Your task to perform on an android device: Play the last video I watched on Youtube Image 0: 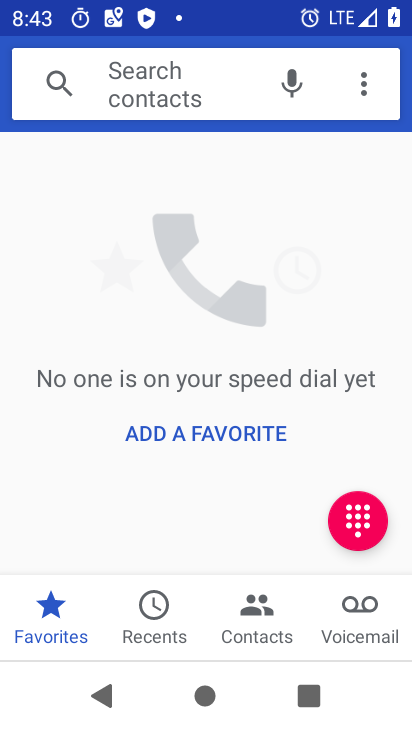
Step 0: press home button
Your task to perform on an android device: Play the last video I watched on Youtube Image 1: 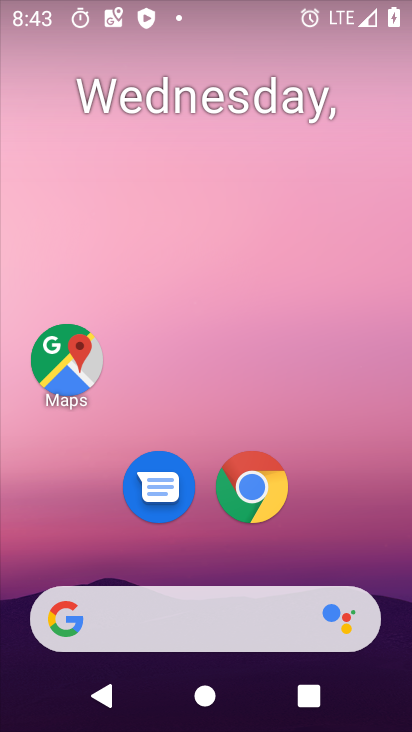
Step 1: drag from (366, 588) to (362, 9)
Your task to perform on an android device: Play the last video I watched on Youtube Image 2: 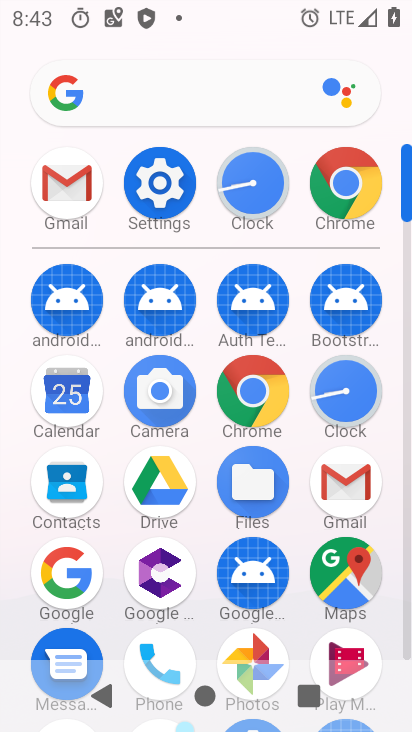
Step 2: click (407, 415)
Your task to perform on an android device: Play the last video I watched on Youtube Image 3: 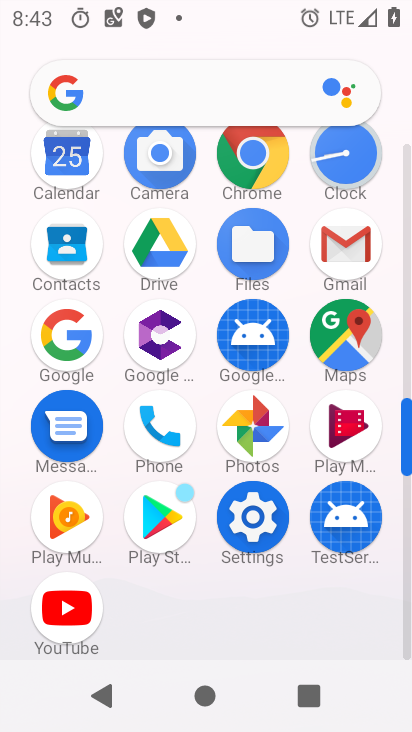
Step 3: click (64, 607)
Your task to perform on an android device: Play the last video I watched on Youtube Image 4: 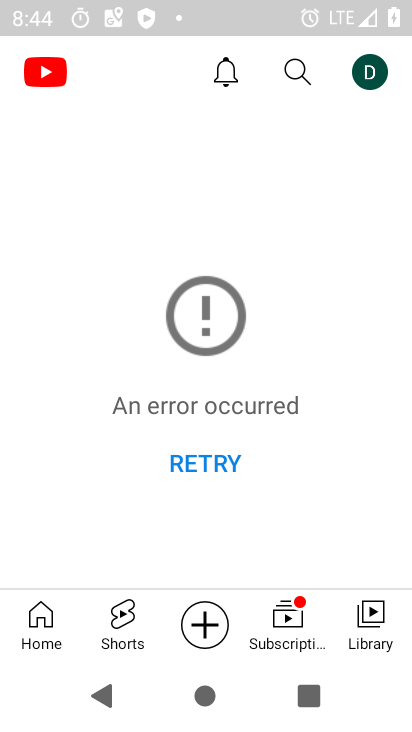
Step 4: click (41, 629)
Your task to perform on an android device: Play the last video I watched on Youtube Image 5: 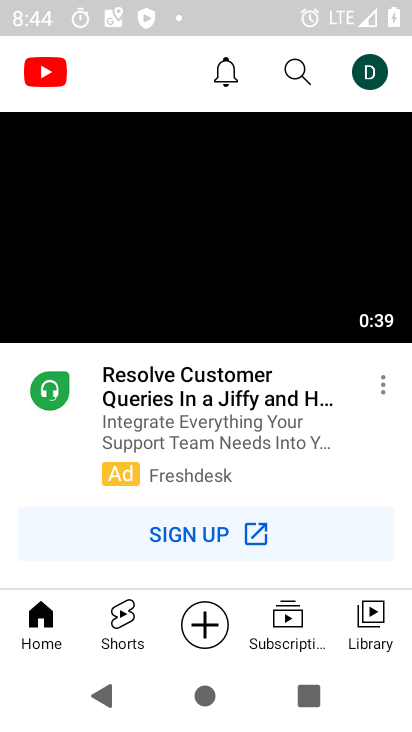
Step 5: click (376, 647)
Your task to perform on an android device: Play the last video I watched on Youtube Image 6: 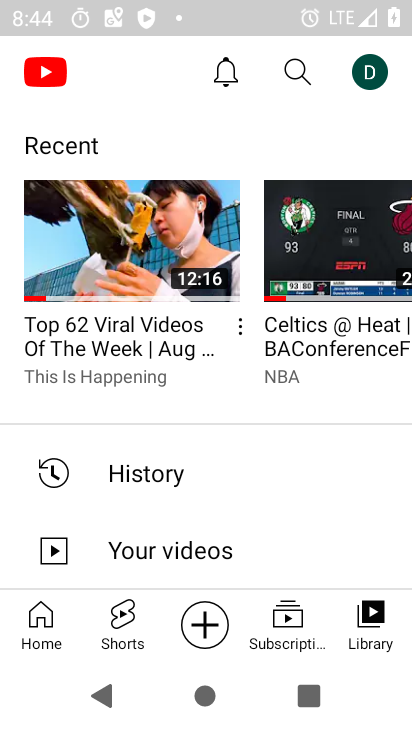
Step 6: click (146, 477)
Your task to perform on an android device: Play the last video I watched on Youtube Image 7: 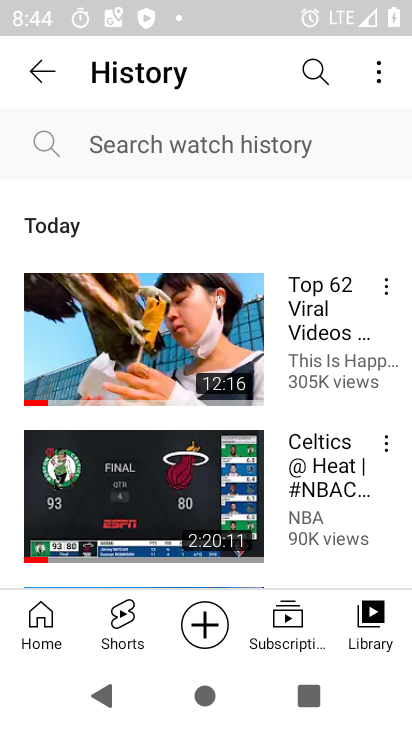
Step 7: click (146, 382)
Your task to perform on an android device: Play the last video I watched on Youtube Image 8: 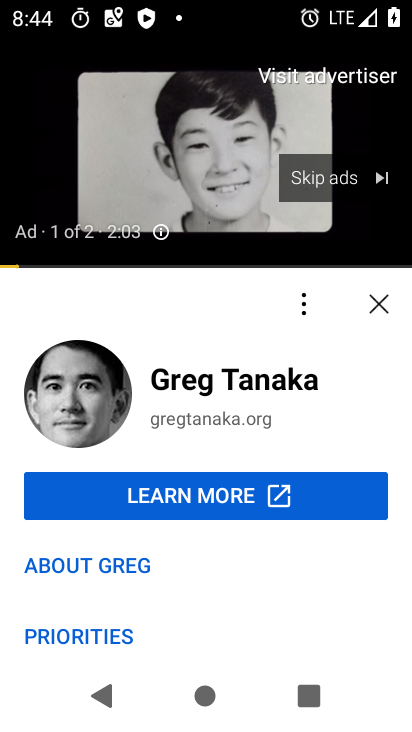
Step 8: click (345, 171)
Your task to perform on an android device: Play the last video I watched on Youtube Image 9: 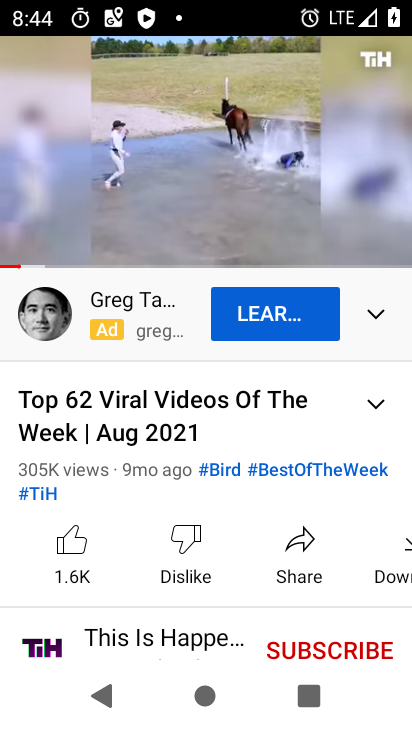
Step 9: click (224, 163)
Your task to perform on an android device: Play the last video I watched on Youtube Image 10: 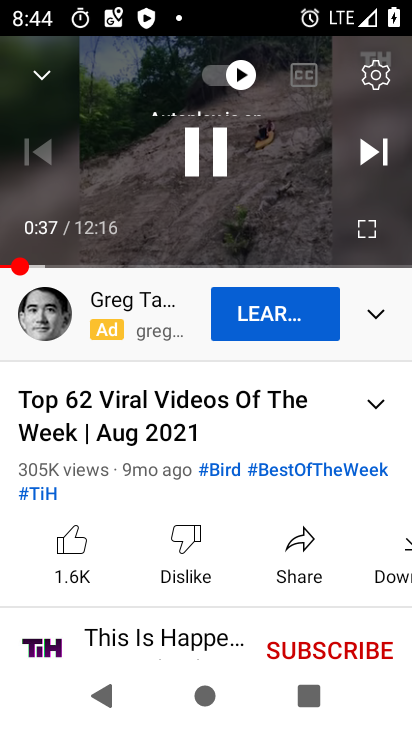
Step 10: click (224, 163)
Your task to perform on an android device: Play the last video I watched on Youtube Image 11: 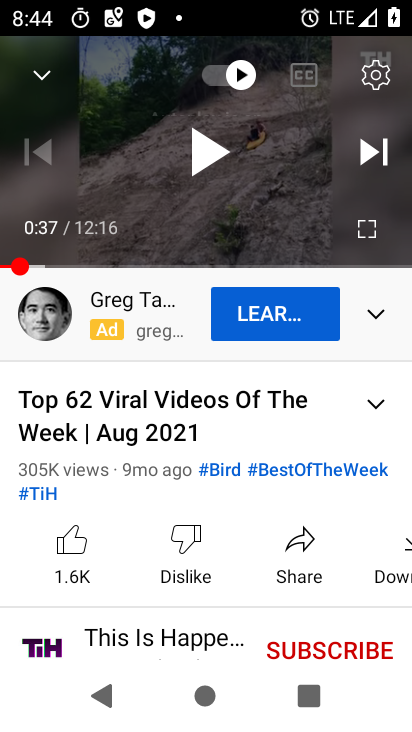
Step 11: task complete